Your task to perform on an android device: toggle data saver in the chrome app Image 0: 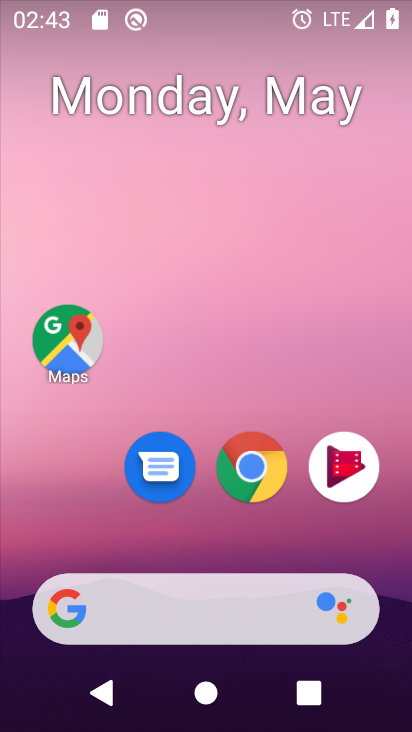
Step 0: click (264, 459)
Your task to perform on an android device: toggle data saver in the chrome app Image 1: 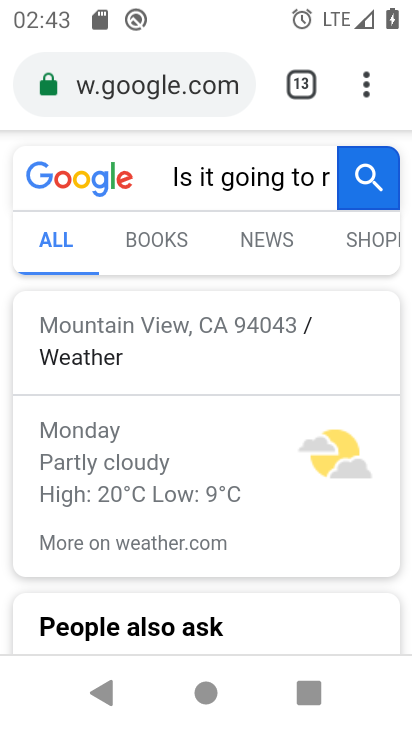
Step 1: click (356, 78)
Your task to perform on an android device: toggle data saver in the chrome app Image 2: 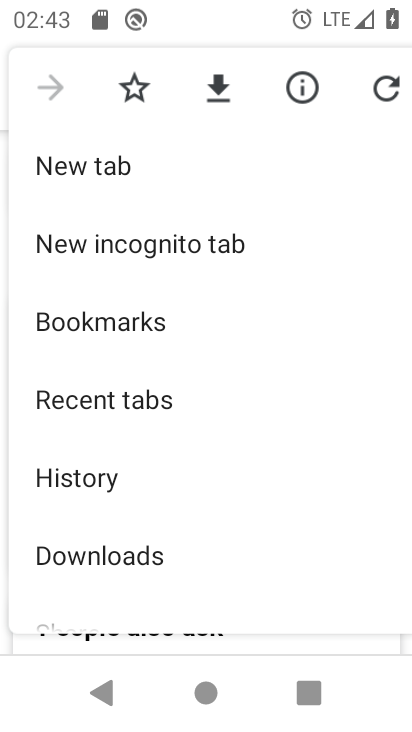
Step 2: drag from (173, 522) to (291, 206)
Your task to perform on an android device: toggle data saver in the chrome app Image 3: 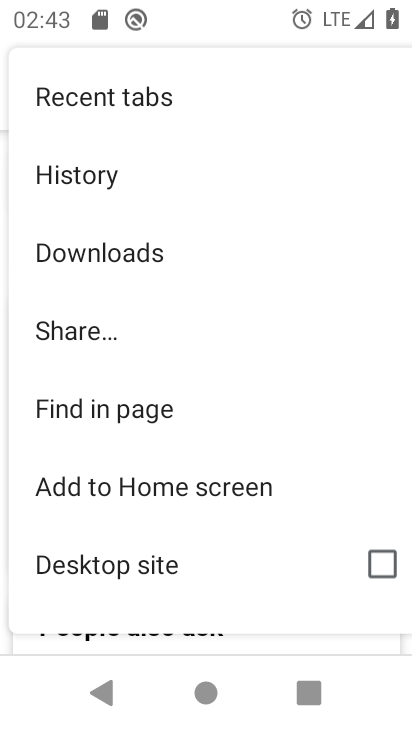
Step 3: drag from (159, 514) to (227, 182)
Your task to perform on an android device: toggle data saver in the chrome app Image 4: 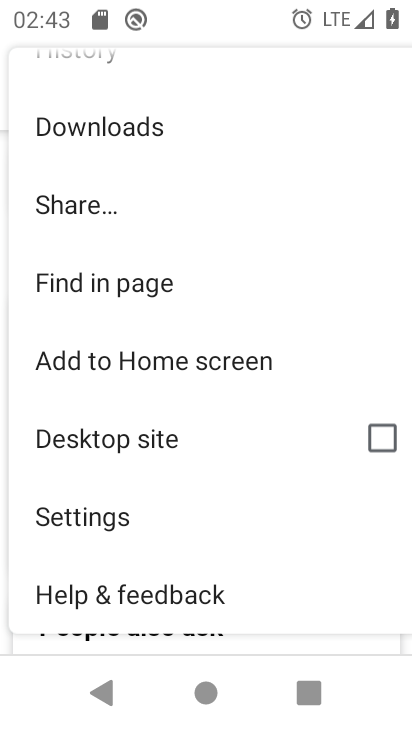
Step 4: click (115, 504)
Your task to perform on an android device: toggle data saver in the chrome app Image 5: 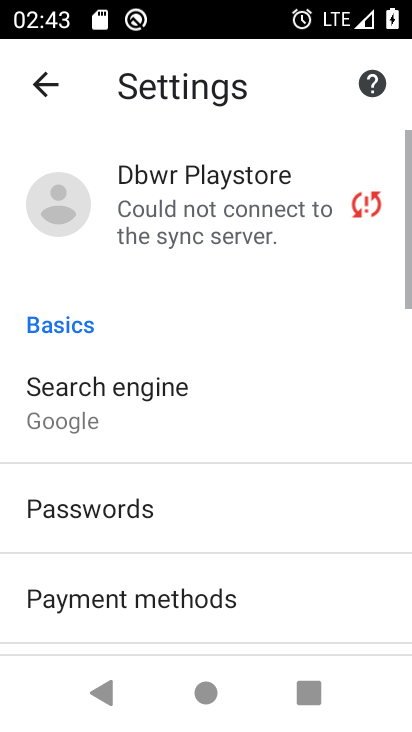
Step 5: drag from (164, 561) to (280, 182)
Your task to perform on an android device: toggle data saver in the chrome app Image 6: 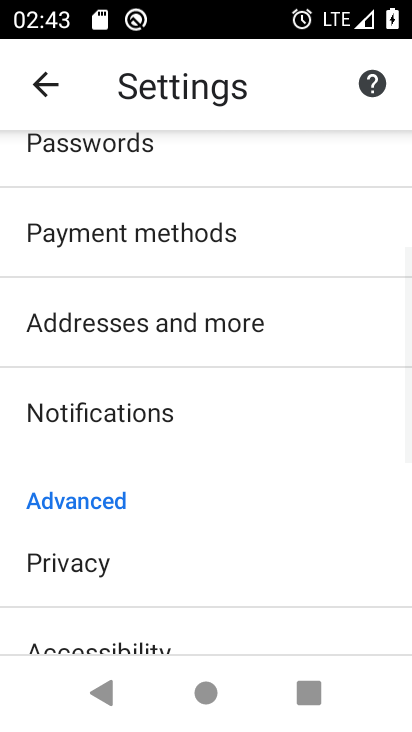
Step 6: drag from (184, 559) to (282, 216)
Your task to perform on an android device: toggle data saver in the chrome app Image 7: 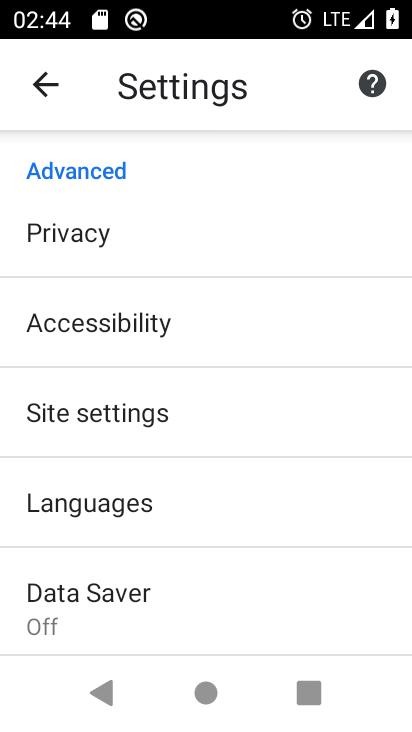
Step 7: click (171, 598)
Your task to perform on an android device: toggle data saver in the chrome app Image 8: 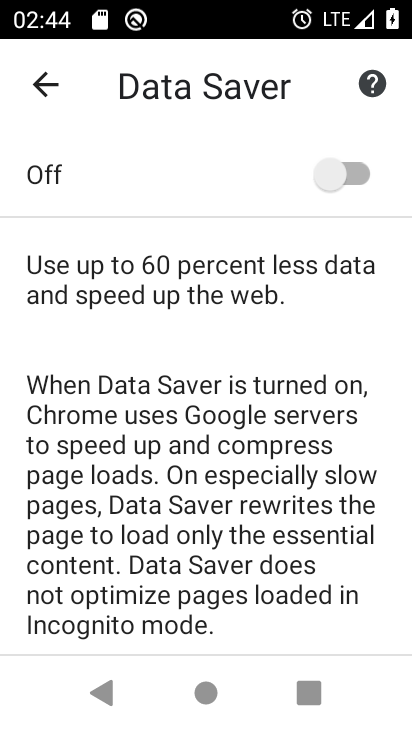
Step 8: click (354, 166)
Your task to perform on an android device: toggle data saver in the chrome app Image 9: 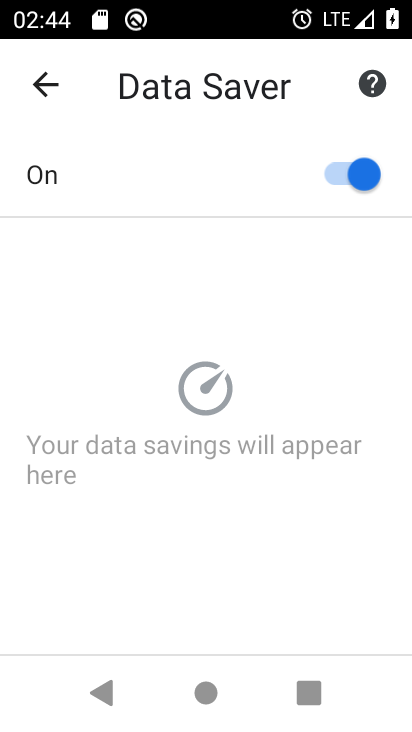
Step 9: task complete